Your task to perform on an android device: turn off smart reply in the gmail app Image 0: 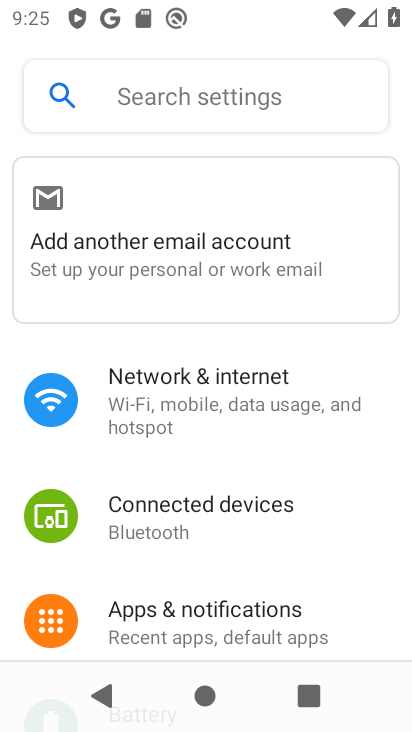
Step 0: press home button
Your task to perform on an android device: turn off smart reply in the gmail app Image 1: 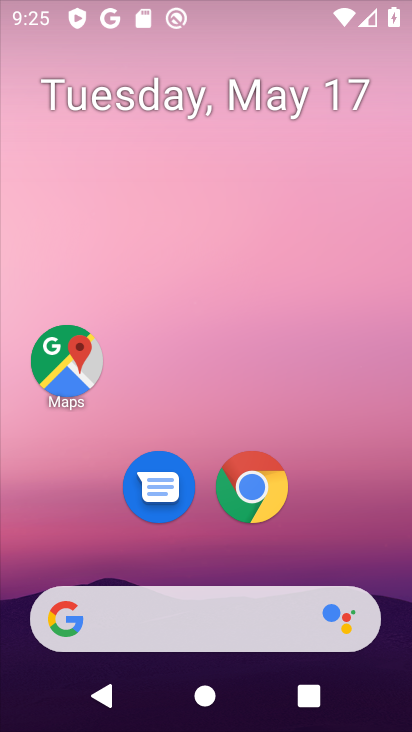
Step 1: drag from (230, 564) to (326, 180)
Your task to perform on an android device: turn off smart reply in the gmail app Image 2: 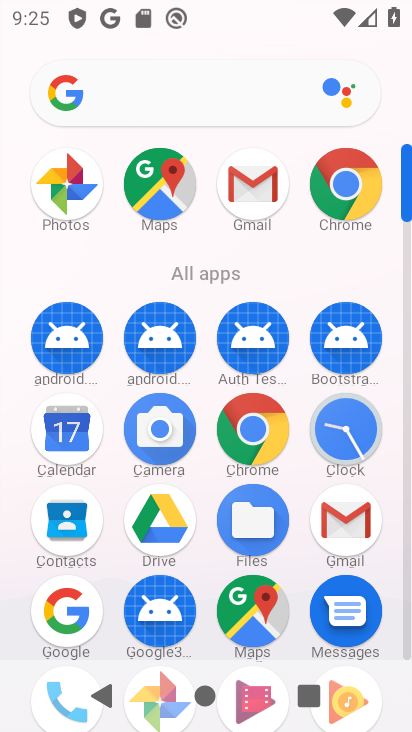
Step 2: drag from (192, 613) to (282, 255)
Your task to perform on an android device: turn off smart reply in the gmail app Image 3: 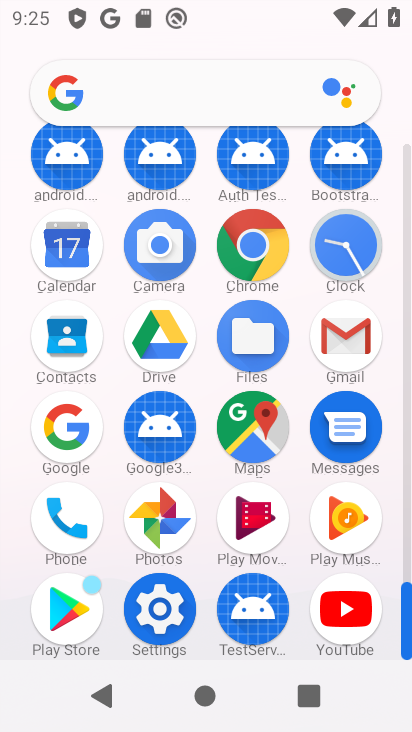
Step 3: click (356, 329)
Your task to perform on an android device: turn off smart reply in the gmail app Image 4: 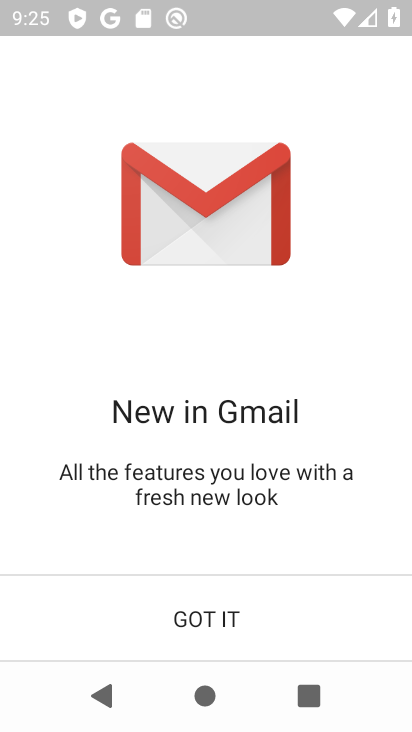
Step 4: click (186, 604)
Your task to perform on an android device: turn off smart reply in the gmail app Image 5: 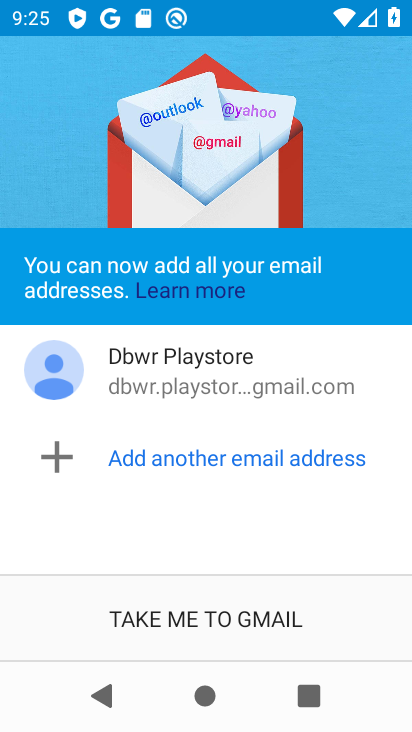
Step 5: click (186, 604)
Your task to perform on an android device: turn off smart reply in the gmail app Image 6: 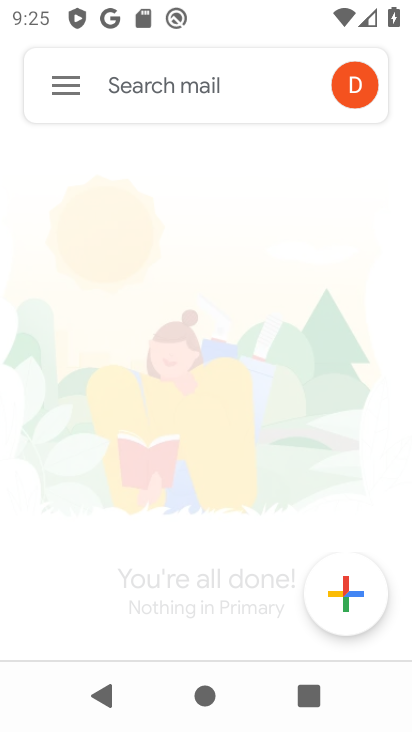
Step 6: click (58, 80)
Your task to perform on an android device: turn off smart reply in the gmail app Image 7: 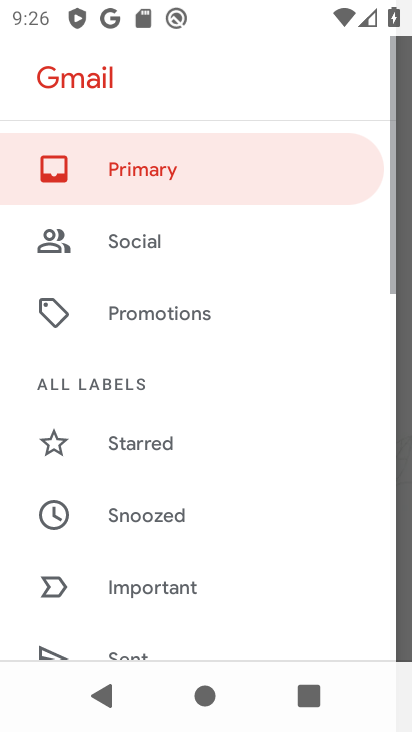
Step 7: drag from (194, 612) to (266, 223)
Your task to perform on an android device: turn off smart reply in the gmail app Image 8: 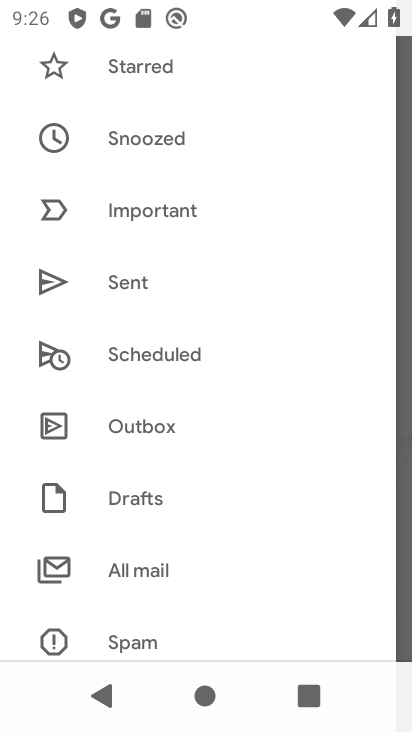
Step 8: drag from (193, 551) to (278, 216)
Your task to perform on an android device: turn off smart reply in the gmail app Image 9: 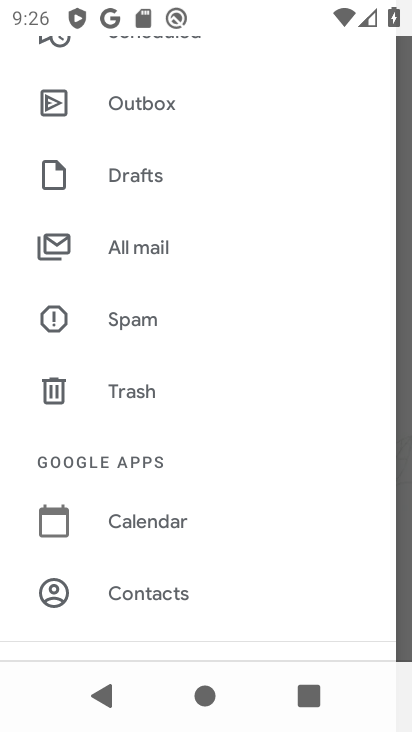
Step 9: drag from (230, 473) to (319, 171)
Your task to perform on an android device: turn off smart reply in the gmail app Image 10: 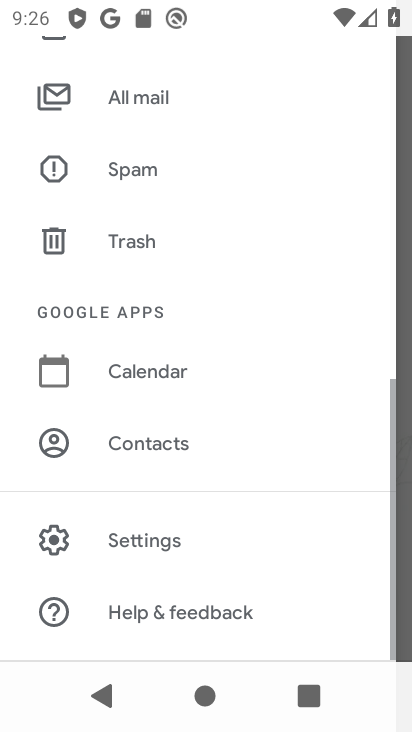
Step 10: click (130, 546)
Your task to perform on an android device: turn off smart reply in the gmail app Image 11: 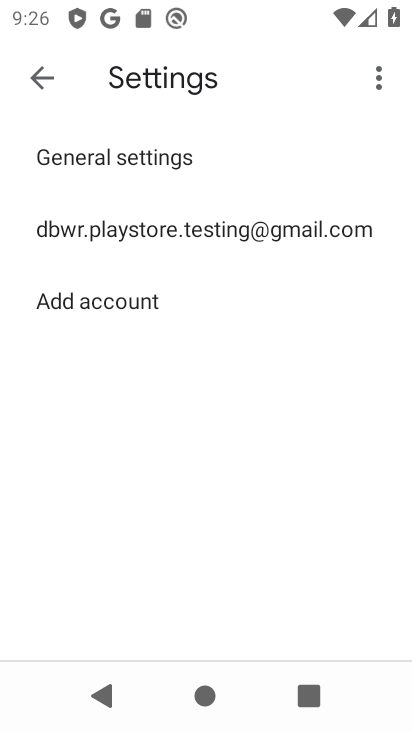
Step 11: click (236, 223)
Your task to perform on an android device: turn off smart reply in the gmail app Image 12: 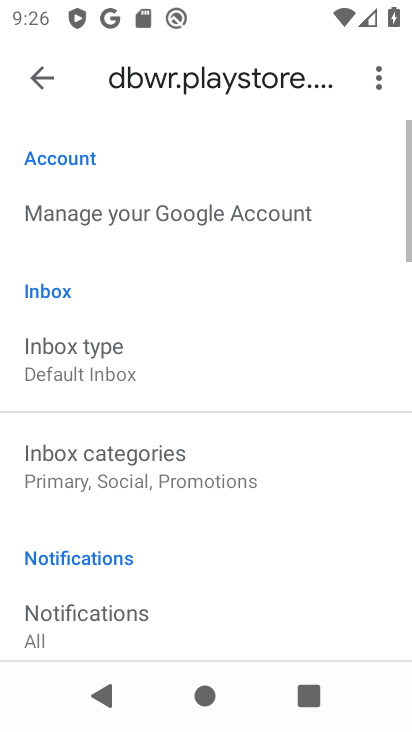
Step 12: drag from (201, 575) to (302, 118)
Your task to perform on an android device: turn off smart reply in the gmail app Image 13: 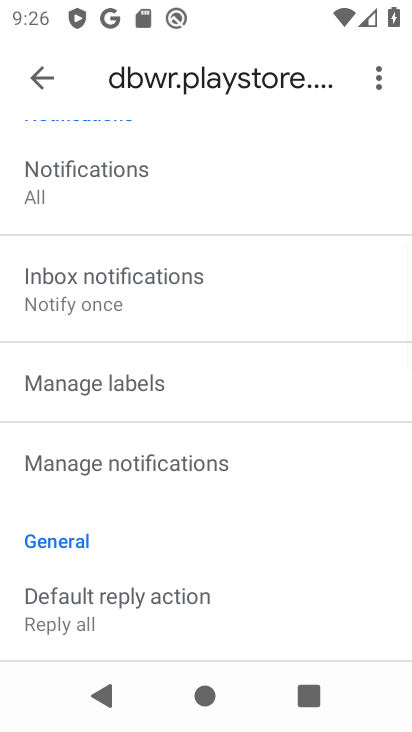
Step 13: drag from (182, 546) to (277, 228)
Your task to perform on an android device: turn off smart reply in the gmail app Image 14: 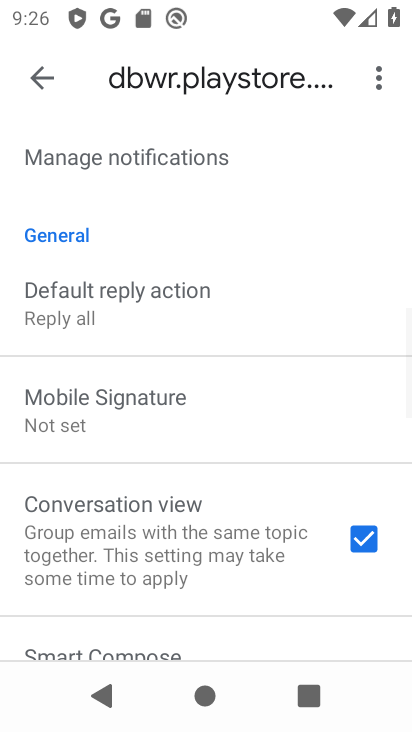
Step 14: drag from (238, 544) to (347, 183)
Your task to perform on an android device: turn off smart reply in the gmail app Image 15: 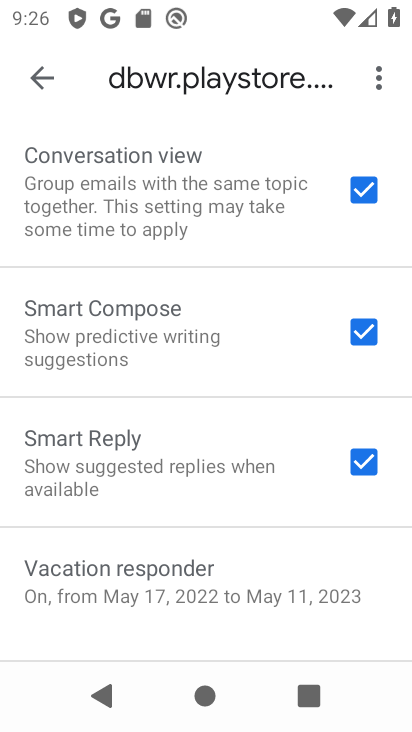
Step 15: click (365, 461)
Your task to perform on an android device: turn off smart reply in the gmail app Image 16: 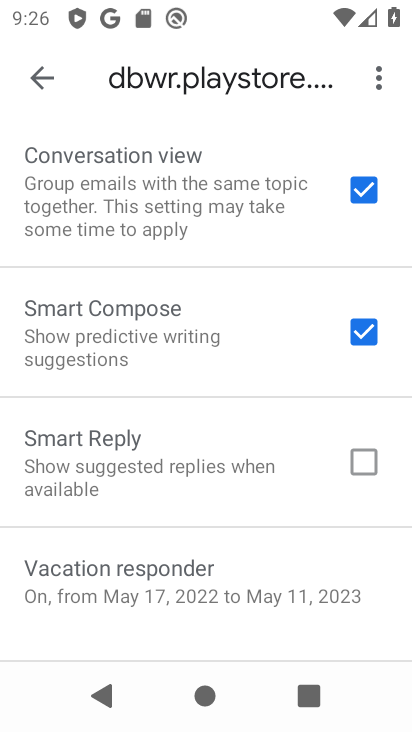
Step 16: task complete